Your task to perform on an android device: open app "Nova Launcher" Image 0: 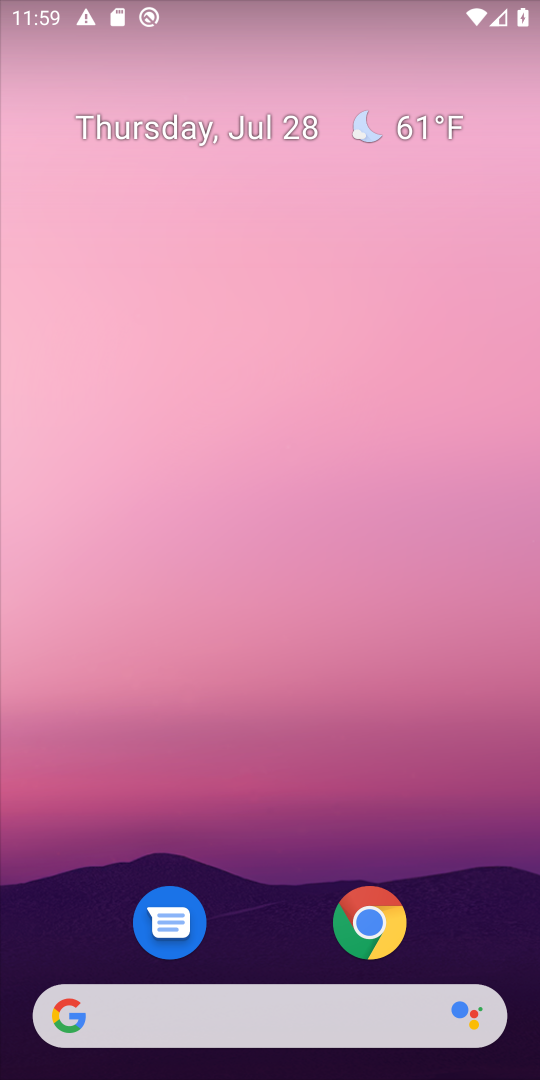
Step 0: drag from (376, 818) to (294, 9)
Your task to perform on an android device: open app "Nova Launcher" Image 1: 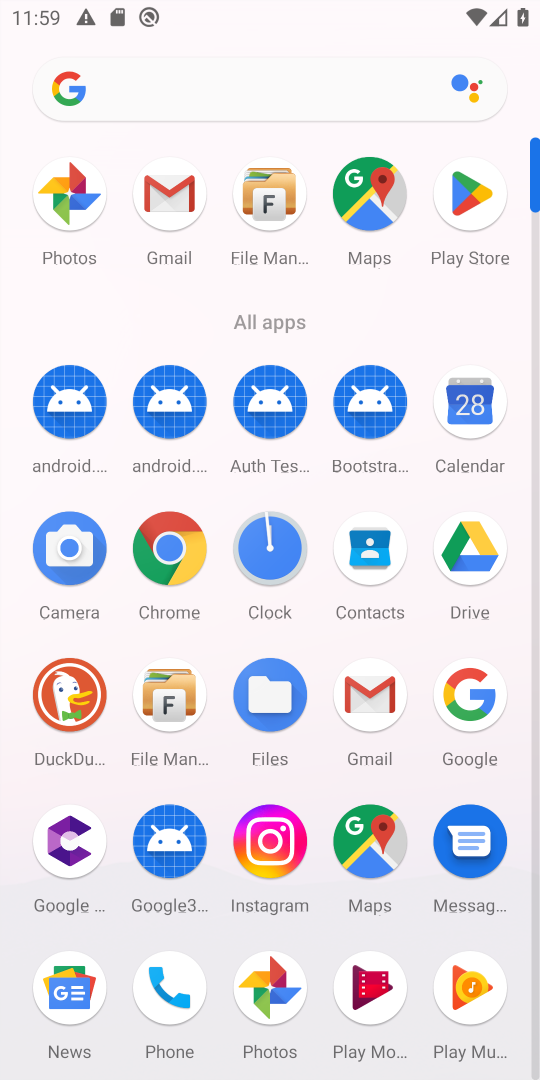
Step 1: click (469, 204)
Your task to perform on an android device: open app "Nova Launcher" Image 2: 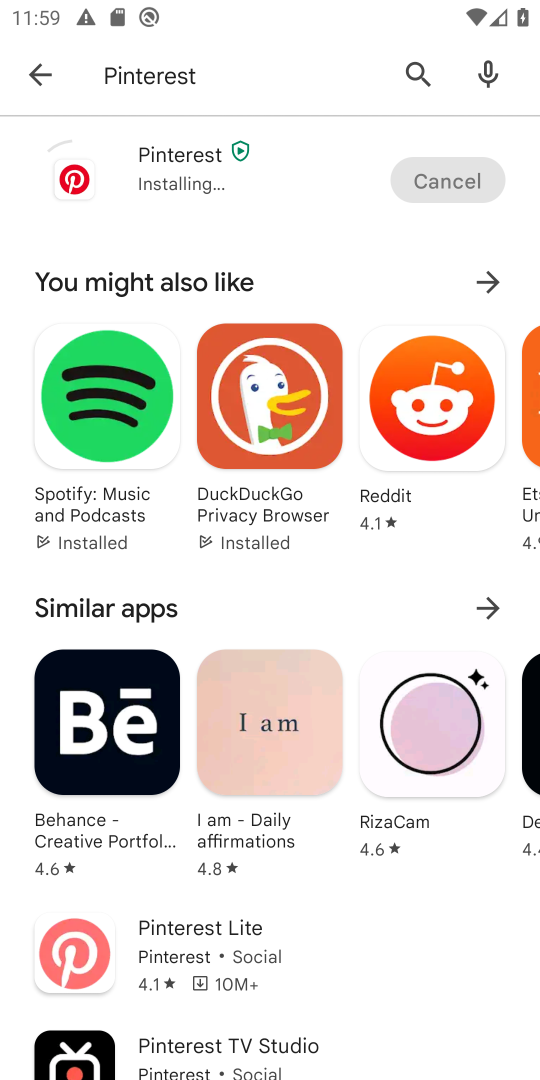
Step 2: click (220, 78)
Your task to perform on an android device: open app "Nova Launcher" Image 3: 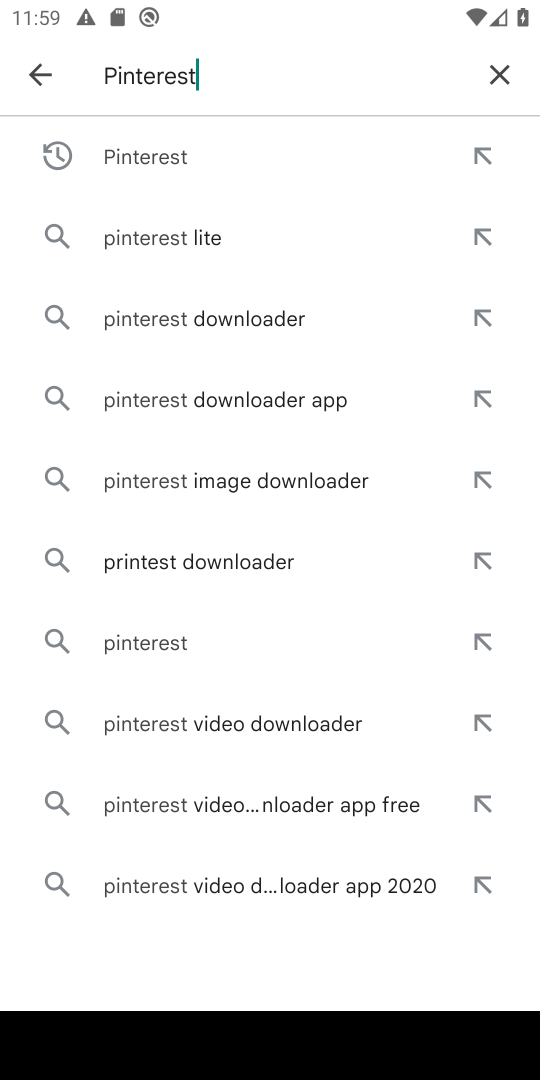
Step 3: click (494, 64)
Your task to perform on an android device: open app "Nova Launcher" Image 4: 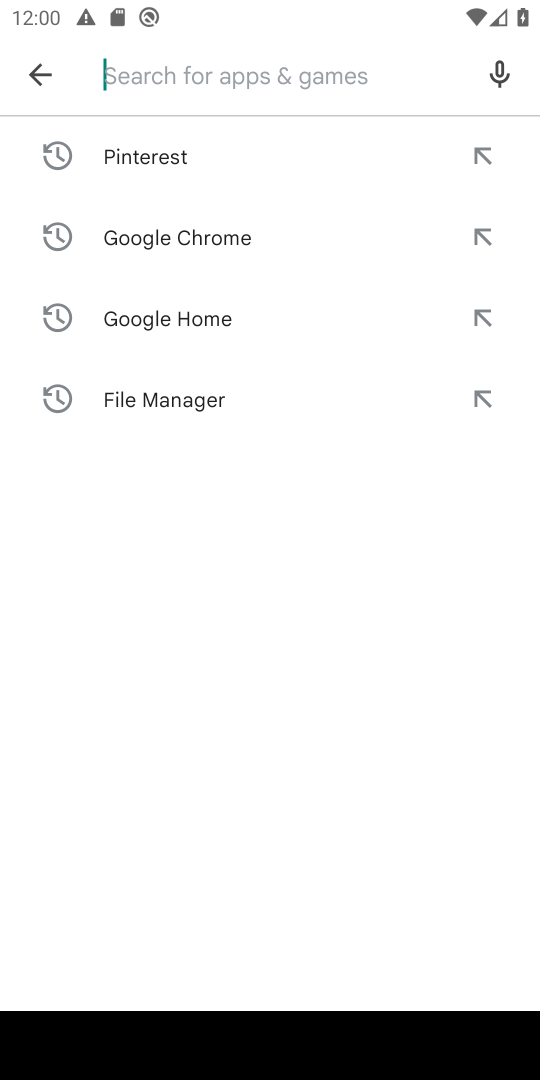
Step 4: type "Nova Launcher"
Your task to perform on an android device: open app "Nova Launcher" Image 5: 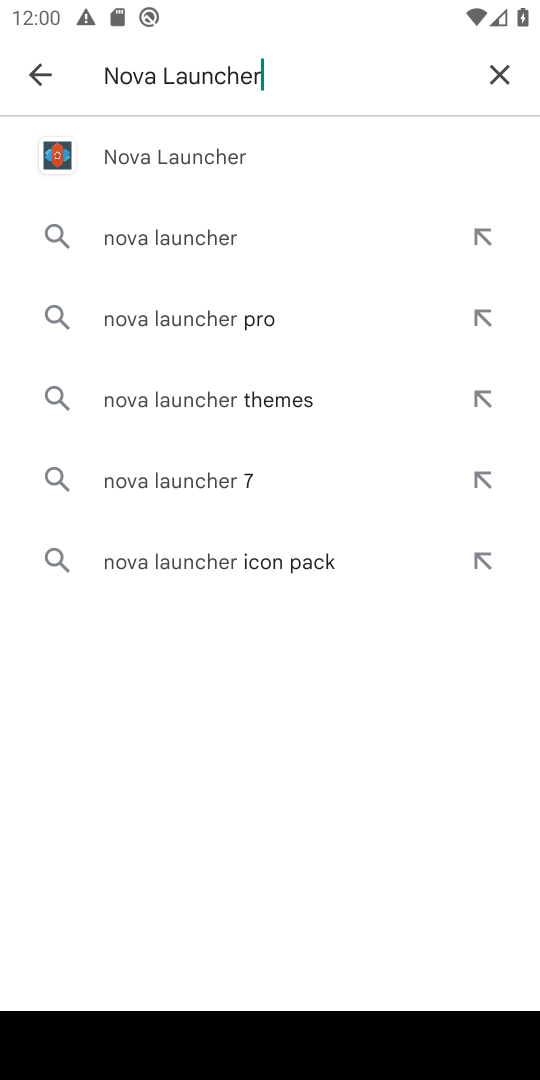
Step 5: click (184, 138)
Your task to perform on an android device: open app "Nova Launcher" Image 6: 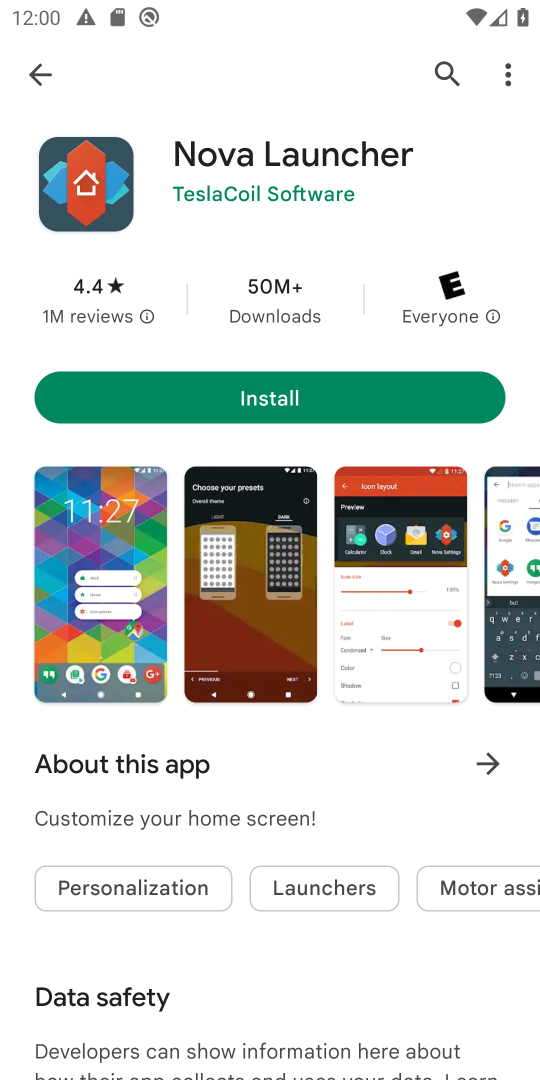
Step 6: task complete